Your task to perform on an android device: check battery use Image 0: 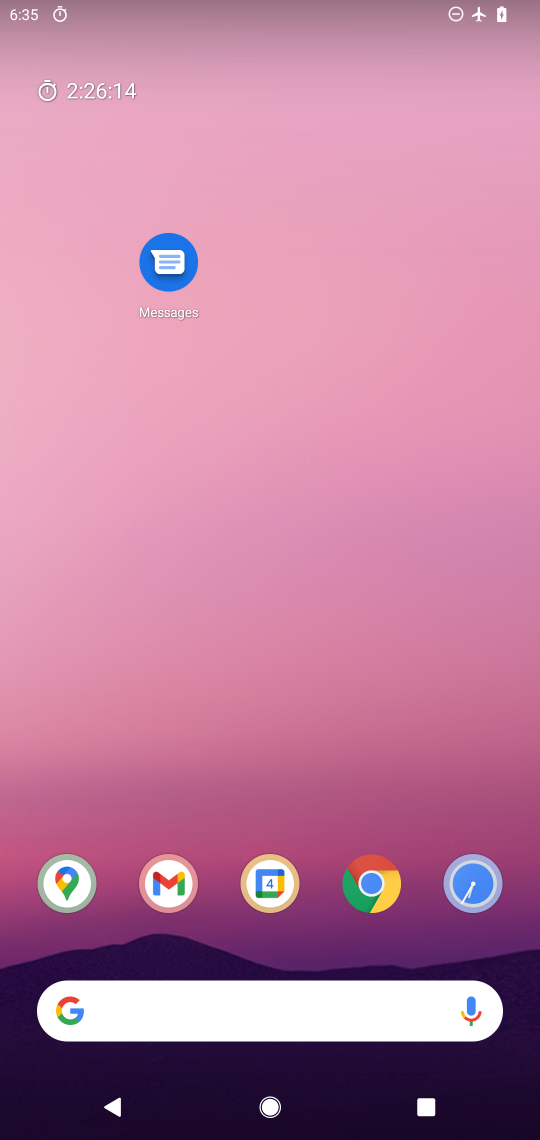
Step 0: drag from (326, 964) to (313, 174)
Your task to perform on an android device: check battery use Image 1: 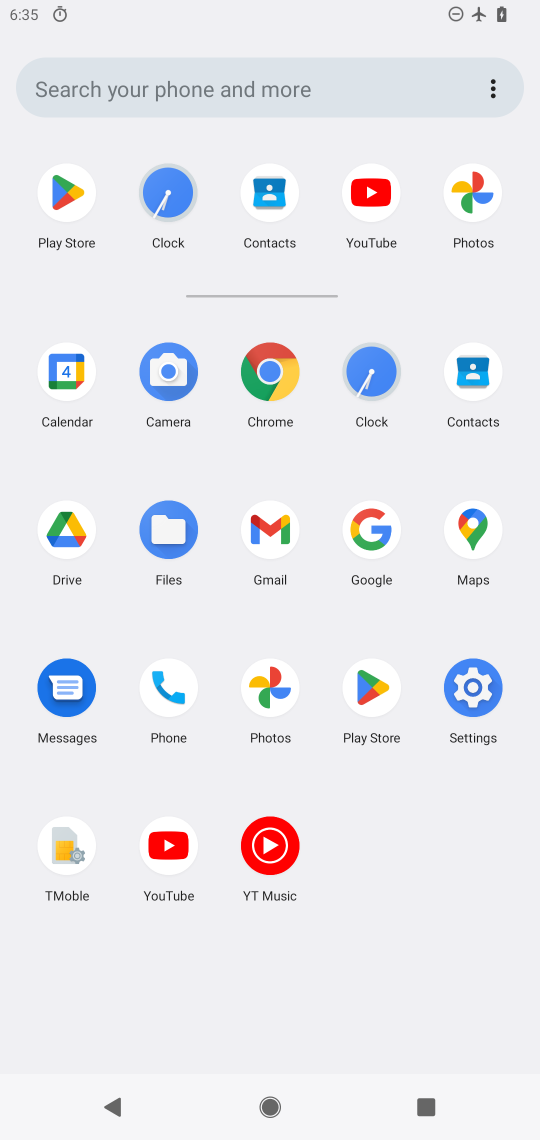
Step 1: click (468, 676)
Your task to perform on an android device: check battery use Image 2: 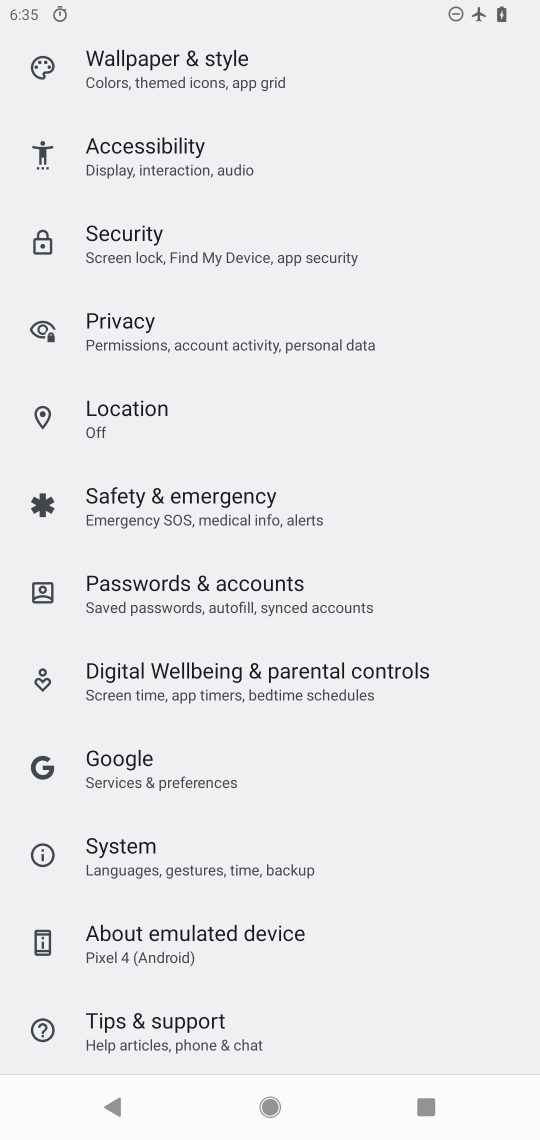
Step 2: drag from (185, 968) to (182, 486)
Your task to perform on an android device: check battery use Image 3: 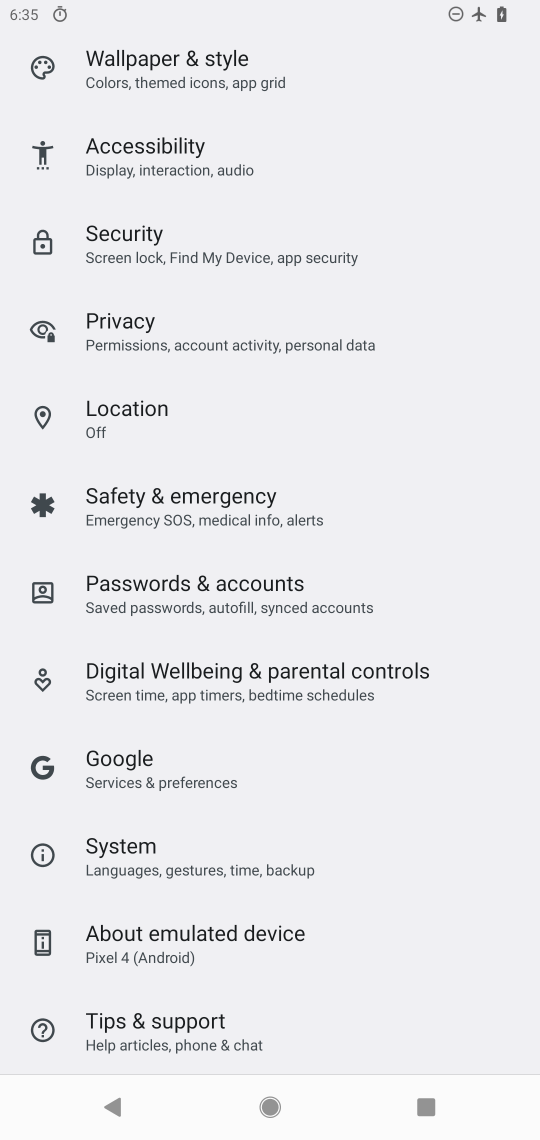
Step 3: drag from (219, 191) to (224, 594)
Your task to perform on an android device: check battery use Image 4: 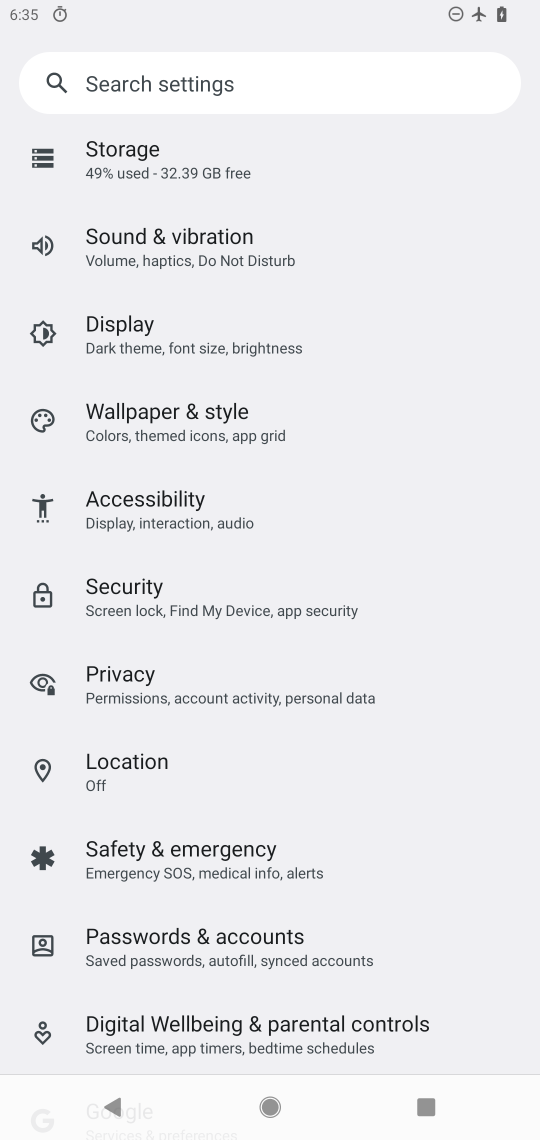
Step 4: drag from (210, 232) to (184, 734)
Your task to perform on an android device: check battery use Image 5: 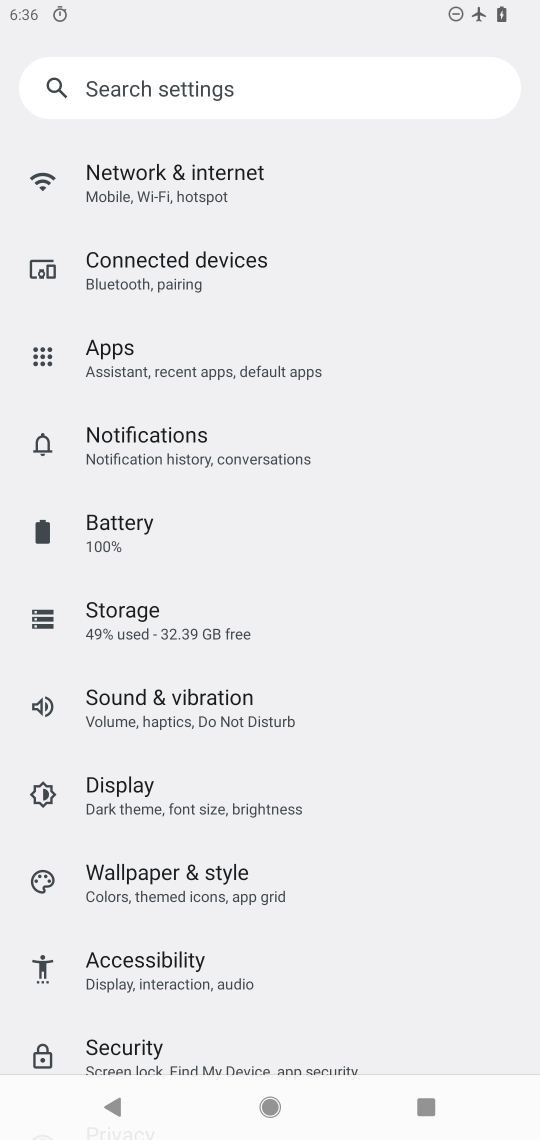
Step 5: click (101, 523)
Your task to perform on an android device: check battery use Image 6: 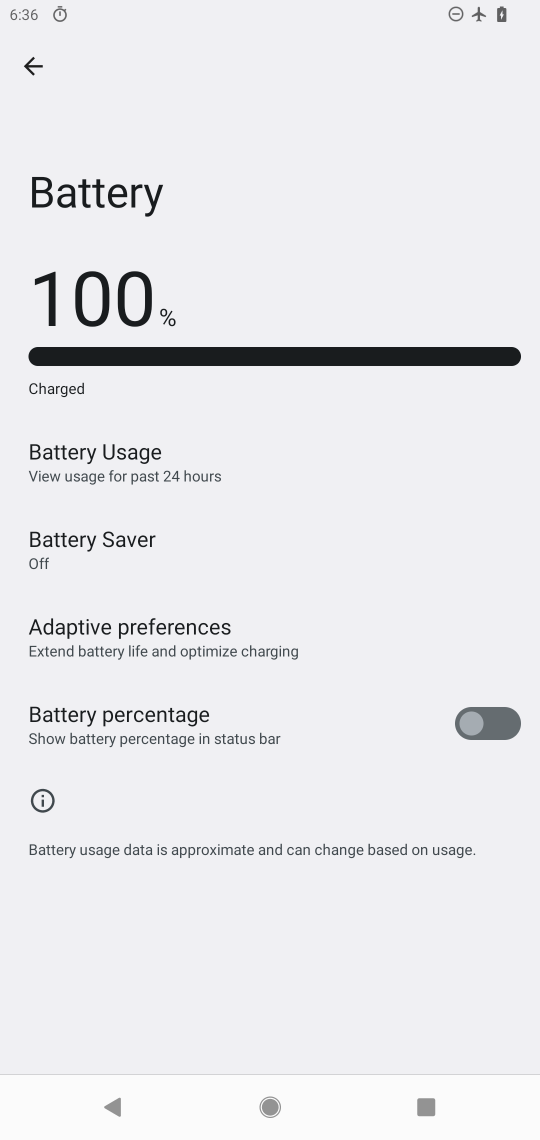
Step 6: click (109, 460)
Your task to perform on an android device: check battery use Image 7: 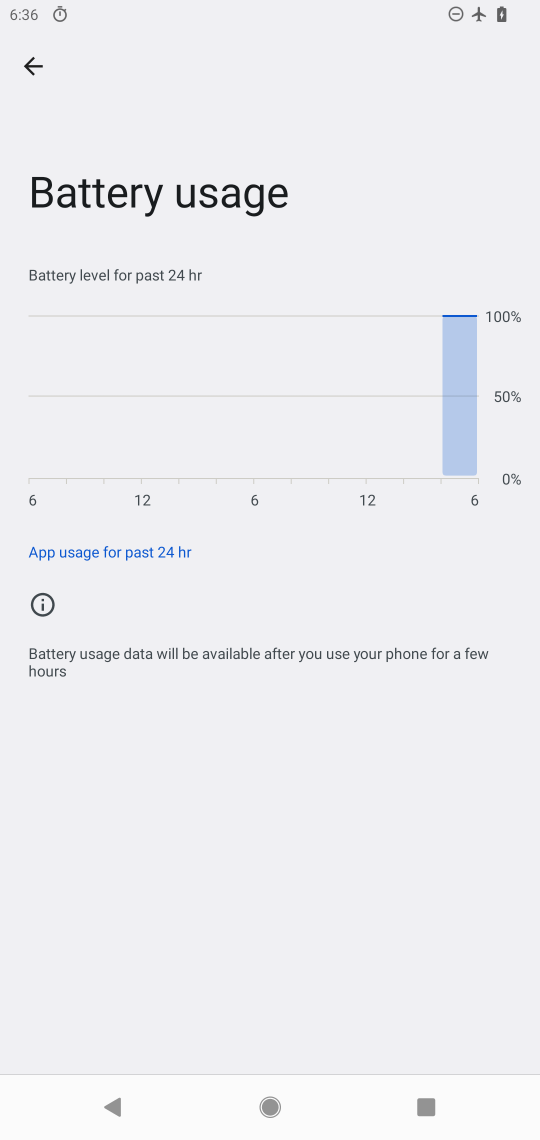
Step 7: task complete